Your task to perform on an android device: Go to Yahoo.com Image 0: 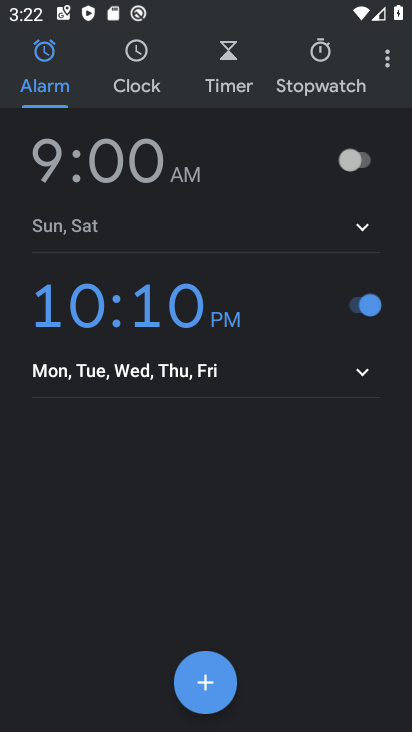
Step 0: press home button
Your task to perform on an android device: Go to Yahoo.com Image 1: 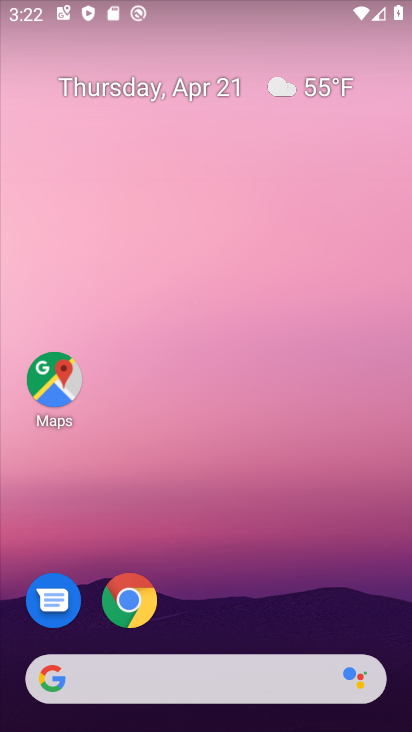
Step 1: drag from (159, 679) to (259, 297)
Your task to perform on an android device: Go to Yahoo.com Image 2: 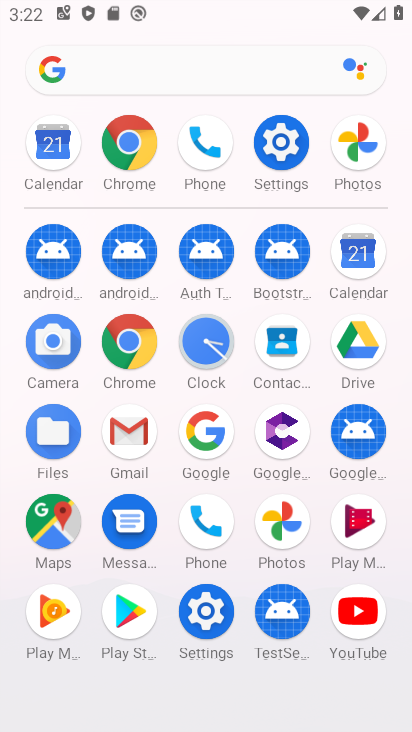
Step 2: click (135, 160)
Your task to perform on an android device: Go to Yahoo.com Image 3: 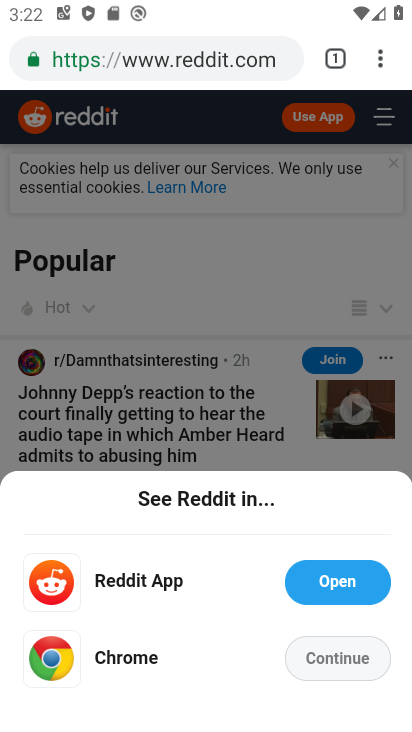
Step 3: click (372, 68)
Your task to perform on an android device: Go to Yahoo.com Image 4: 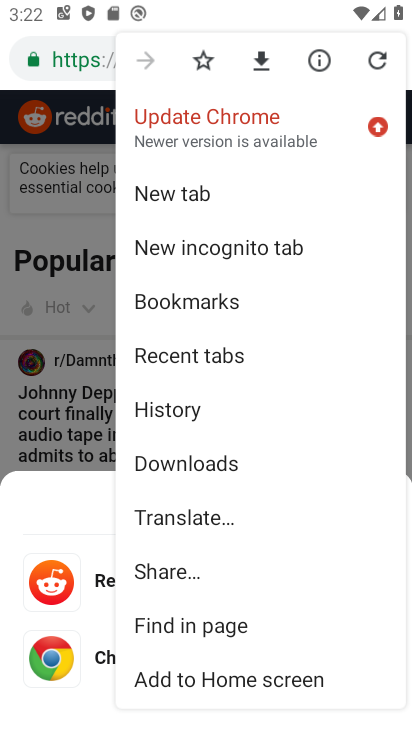
Step 4: click (185, 197)
Your task to perform on an android device: Go to Yahoo.com Image 5: 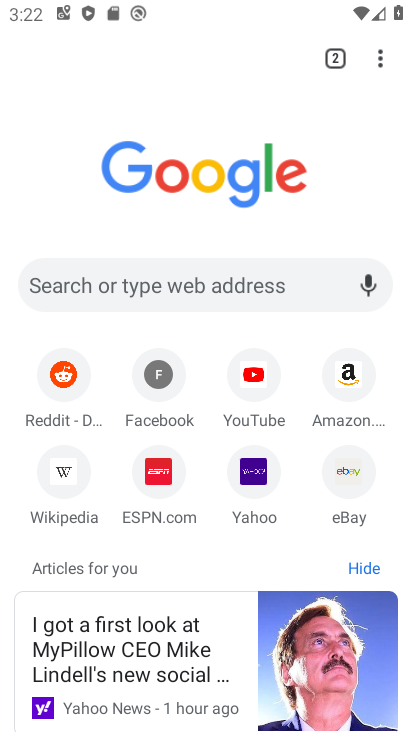
Step 5: click (262, 490)
Your task to perform on an android device: Go to Yahoo.com Image 6: 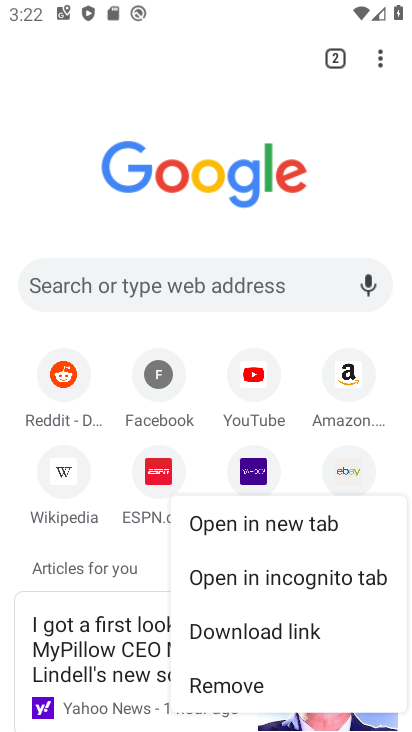
Step 6: click (254, 481)
Your task to perform on an android device: Go to Yahoo.com Image 7: 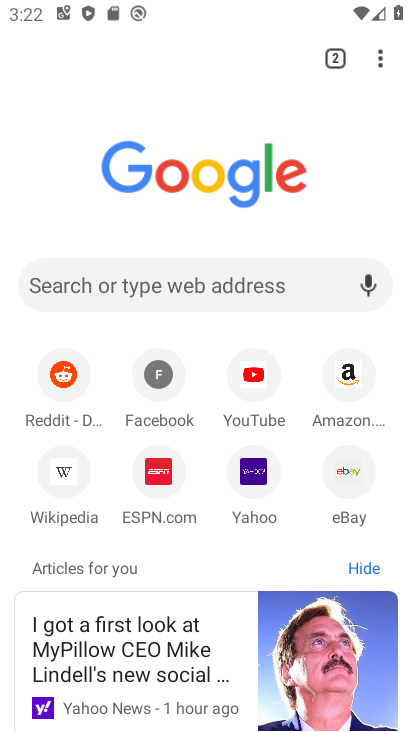
Step 7: click (258, 475)
Your task to perform on an android device: Go to Yahoo.com Image 8: 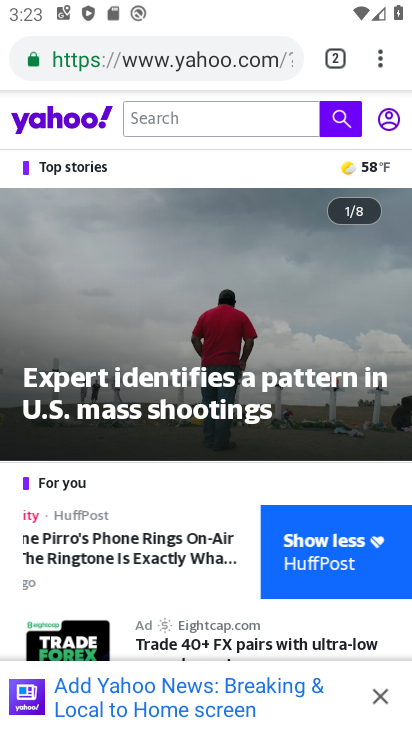
Step 8: task complete